Your task to perform on an android device: Open internet settings Image 0: 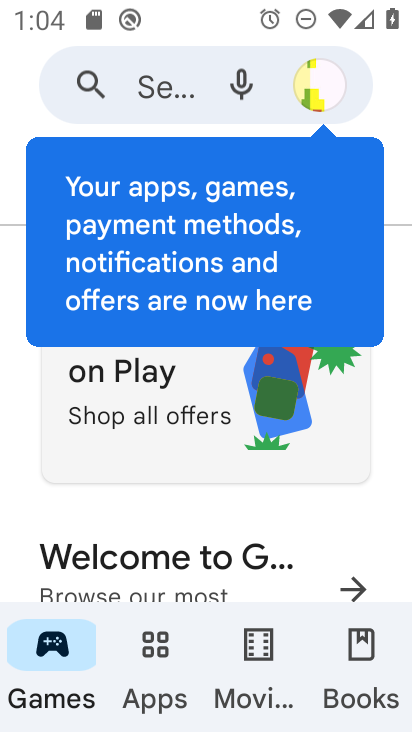
Step 0: press home button
Your task to perform on an android device: Open internet settings Image 1: 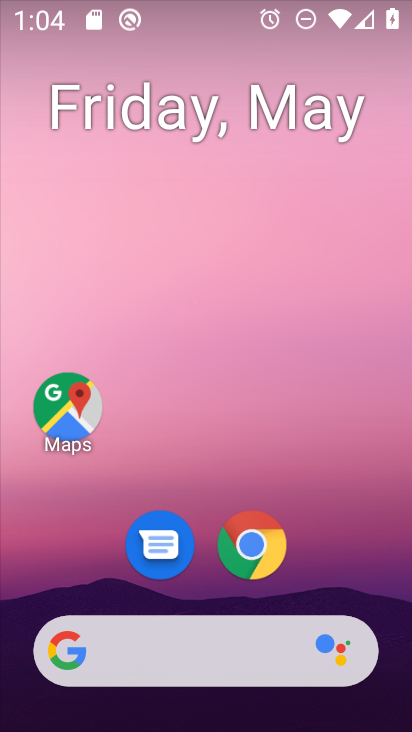
Step 1: drag from (319, 566) to (288, 163)
Your task to perform on an android device: Open internet settings Image 2: 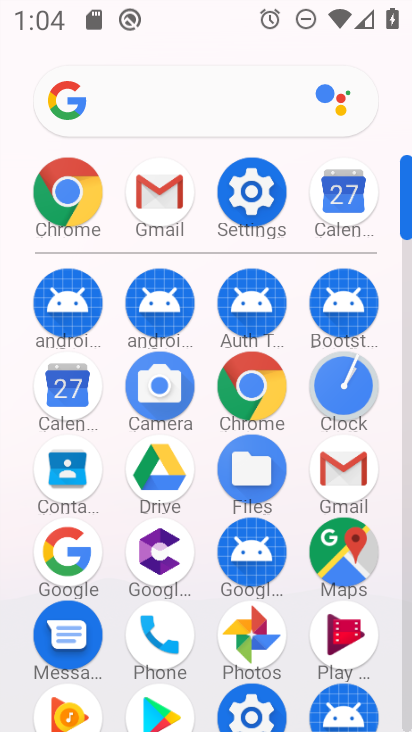
Step 2: click (249, 180)
Your task to perform on an android device: Open internet settings Image 3: 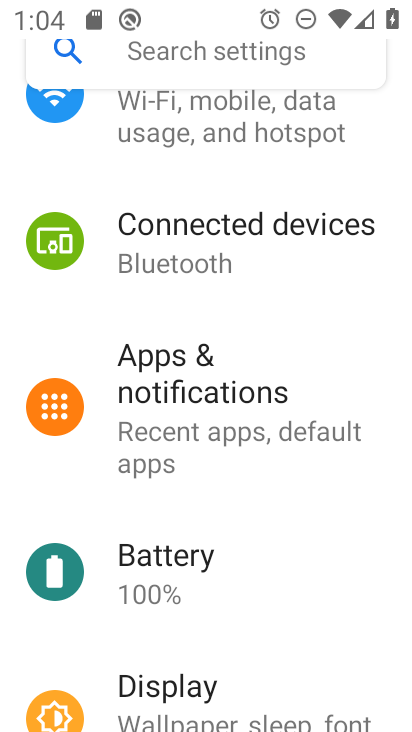
Step 3: drag from (291, 146) to (268, 627)
Your task to perform on an android device: Open internet settings Image 4: 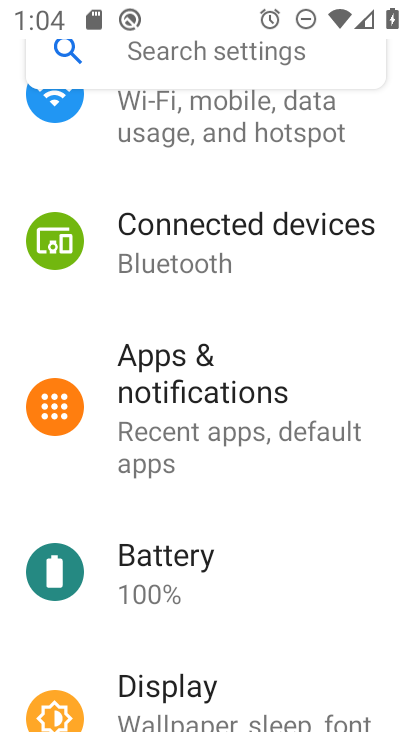
Step 4: drag from (186, 189) to (171, 487)
Your task to perform on an android device: Open internet settings Image 5: 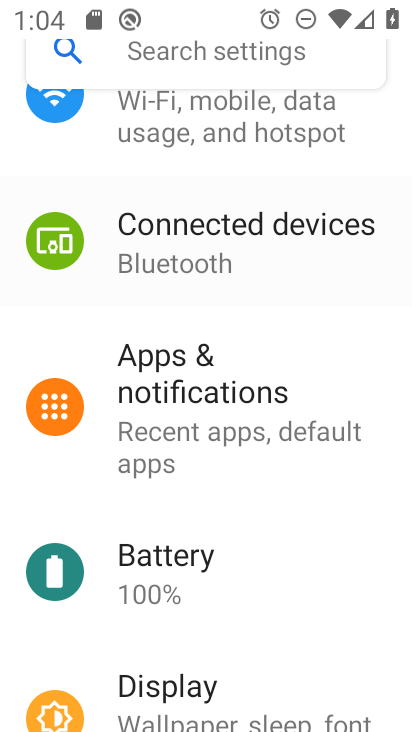
Step 5: drag from (181, 161) to (207, 464)
Your task to perform on an android device: Open internet settings Image 6: 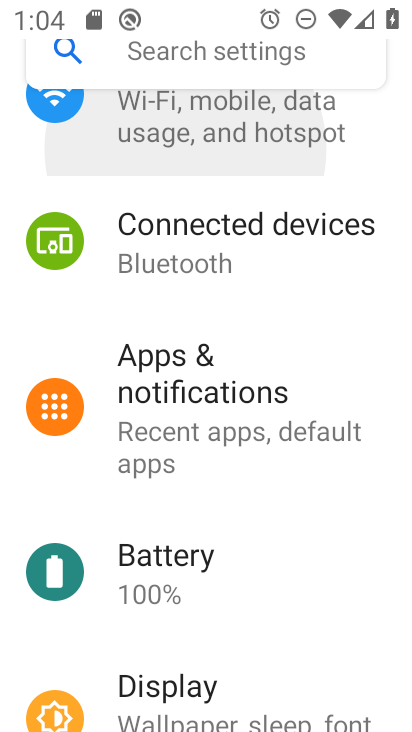
Step 6: drag from (192, 283) to (193, 575)
Your task to perform on an android device: Open internet settings Image 7: 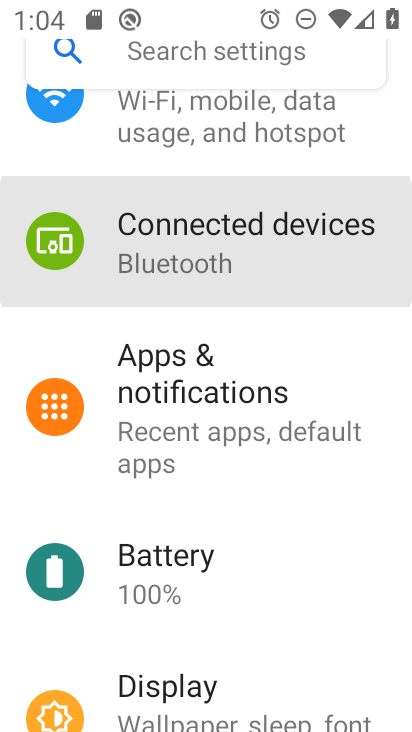
Step 7: drag from (184, 285) to (199, 580)
Your task to perform on an android device: Open internet settings Image 8: 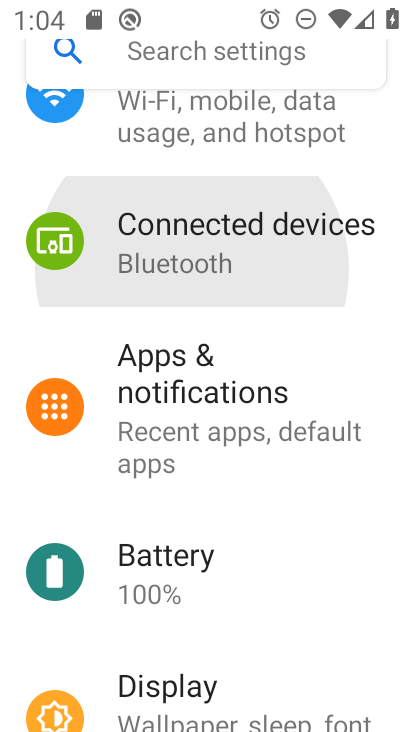
Step 8: drag from (195, 280) to (178, 579)
Your task to perform on an android device: Open internet settings Image 9: 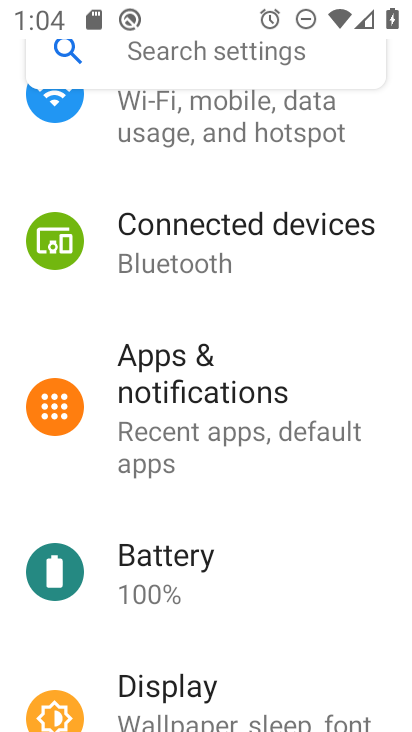
Step 9: click (187, 131)
Your task to perform on an android device: Open internet settings Image 10: 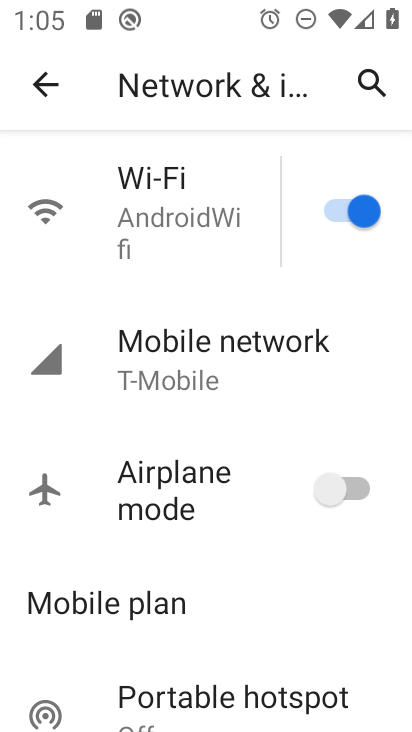
Step 10: task complete